Your task to perform on an android device: delete browsing data in the chrome app Image 0: 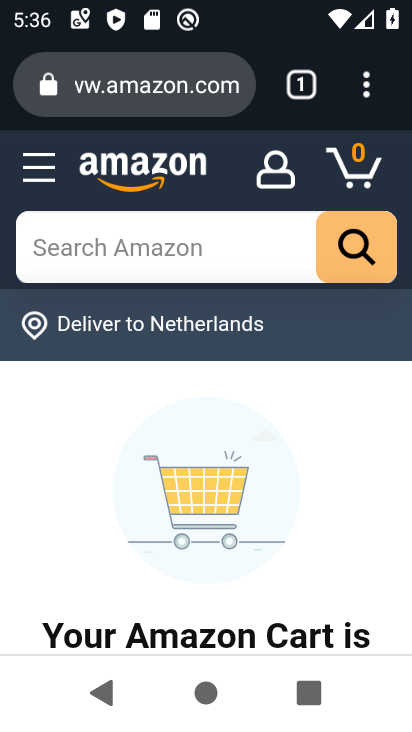
Step 0: drag from (370, 73) to (100, 511)
Your task to perform on an android device: delete browsing data in the chrome app Image 1: 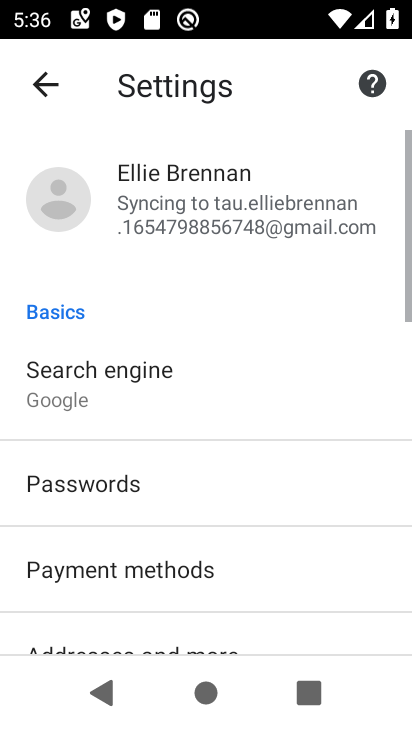
Step 1: drag from (318, 529) to (367, 97)
Your task to perform on an android device: delete browsing data in the chrome app Image 2: 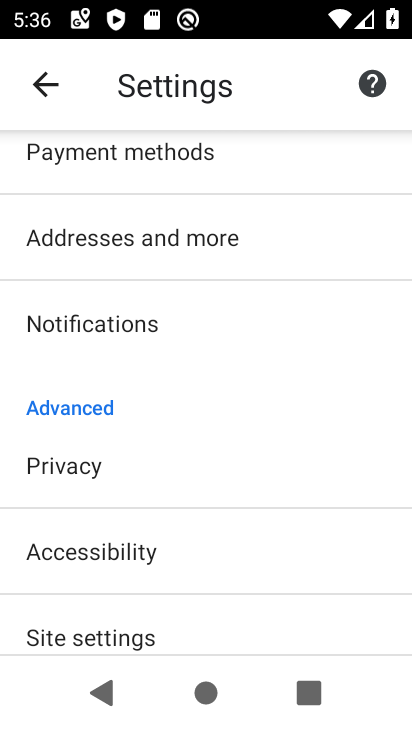
Step 2: drag from (169, 618) to (271, 166)
Your task to perform on an android device: delete browsing data in the chrome app Image 3: 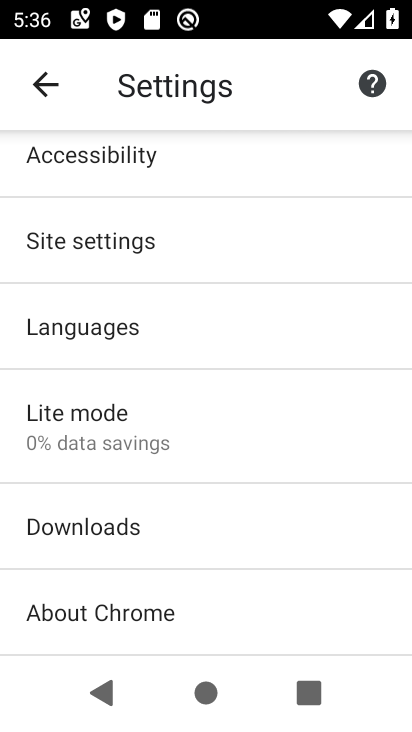
Step 3: drag from (191, 593) to (215, 276)
Your task to perform on an android device: delete browsing data in the chrome app Image 4: 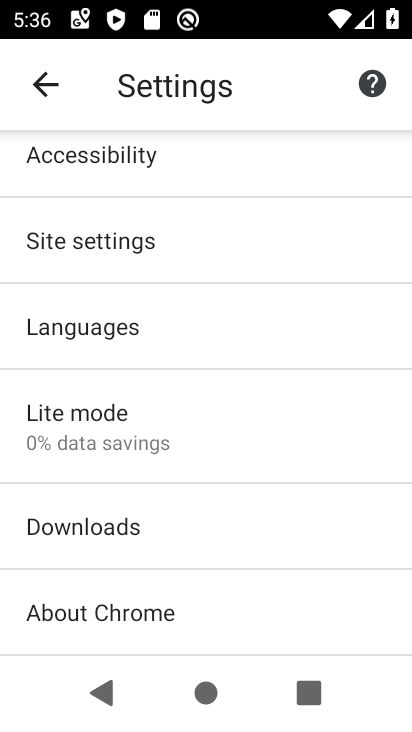
Step 4: drag from (224, 192) to (307, 724)
Your task to perform on an android device: delete browsing data in the chrome app Image 5: 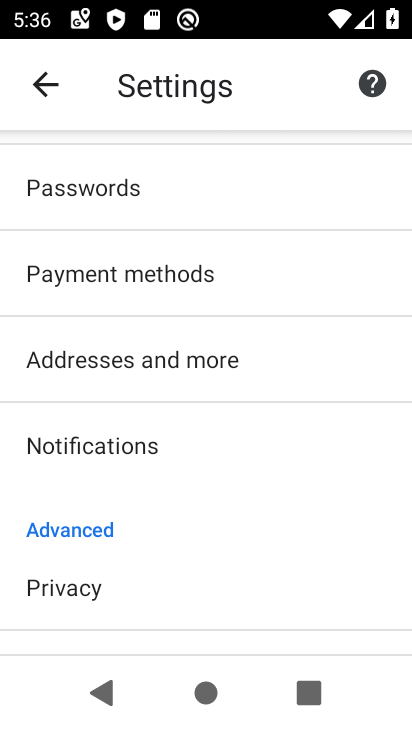
Step 5: click (54, 81)
Your task to perform on an android device: delete browsing data in the chrome app Image 6: 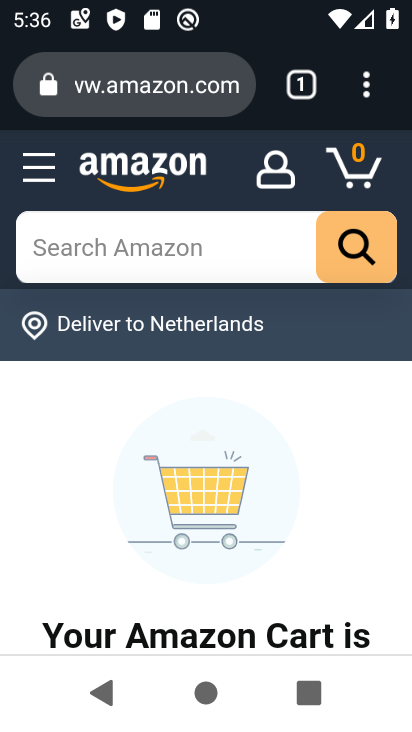
Step 6: drag from (362, 80) to (120, 478)
Your task to perform on an android device: delete browsing data in the chrome app Image 7: 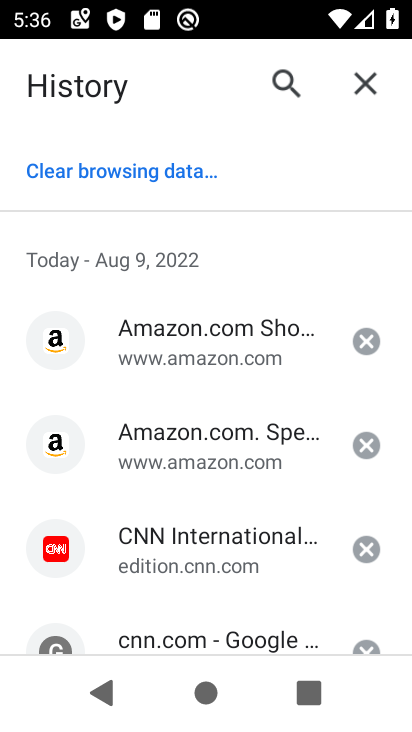
Step 7: drag from (205, 465) to (223, 237)
Your task to perform on an android device: delete browsing data in the chrome app Image 8: 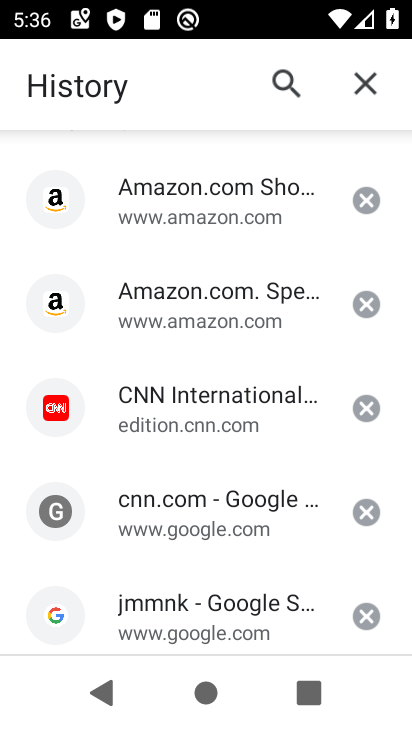
Step 8: drag from (214, 257) to (188, 731)
Your task to perform on an android device: delete browsing data in the chrome app Image 9: 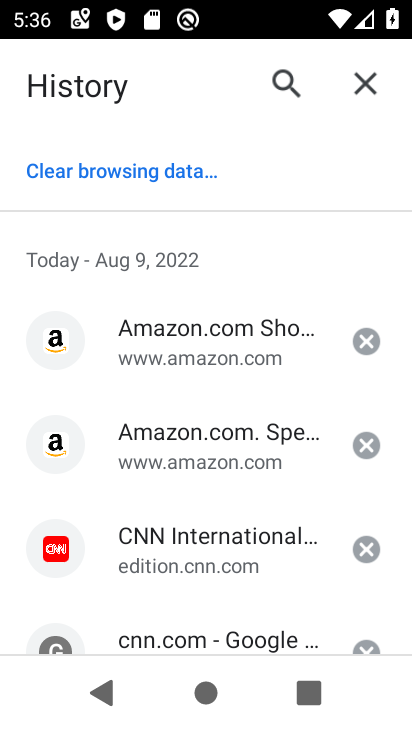
Step 9: click (78, 165)
Your task to perform on an android device: delete browsing data in the chrome app Image 10: 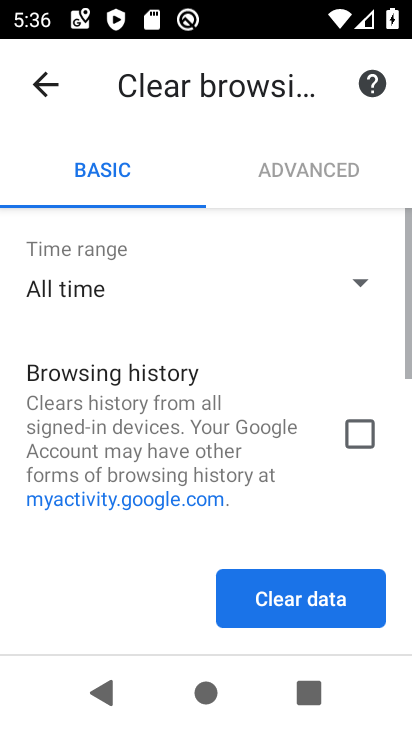
Step 10: drag from (269, 546) to (263, 311)
Your task to perform on an android device: delete browsing data in the chrome app Image 11: 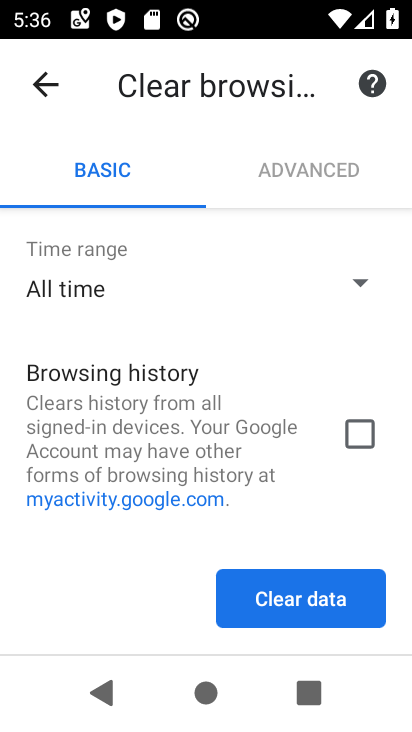
Step 11: drag from (233, 471) to (244, 197)
Your task to perform on an android device: delete browsing data in the chrome app Image 12: 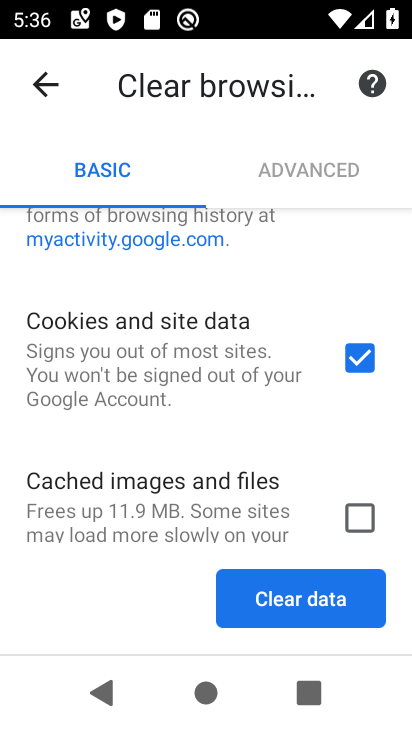
Step 12: click (254, 216)
Your task to perform on an android device: delete browsing data in the chrome app Image 13: 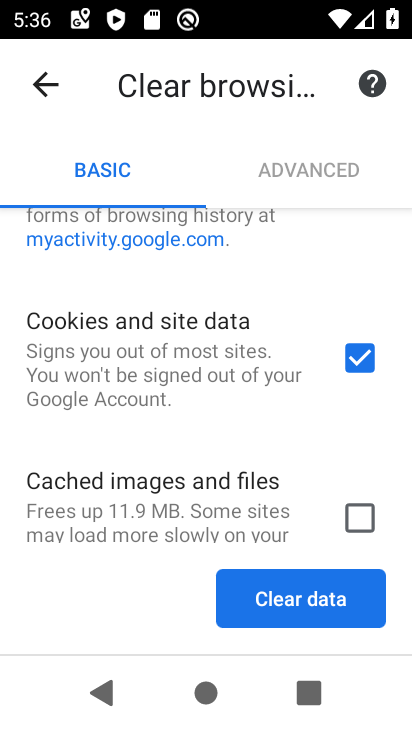
Step 13: drag from (221, 264) to (306, 661)
Your task to perform on an android device: delete browsing data in the chrome app Image 14: 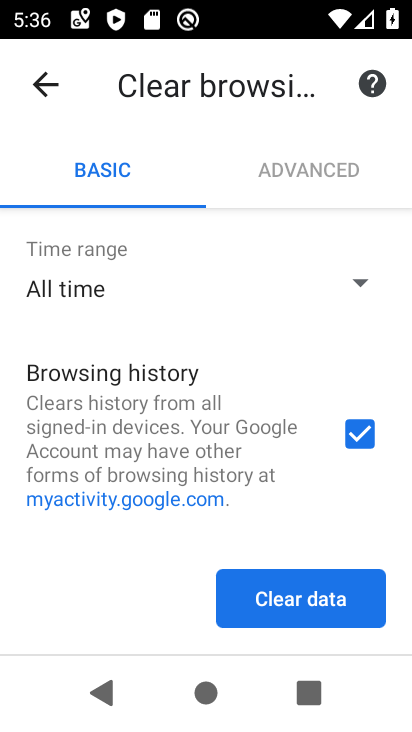
Step 14: click (350, 432)
Your task to perform on an android device: delete browsing data in the chrome app Image 15: 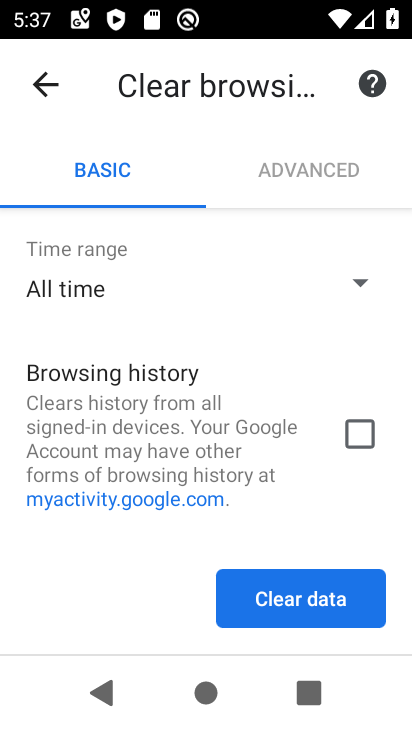
Step 15: click (294, 605)
Your task to perform on an android device: delete browsing data in the chrome app Image 16: 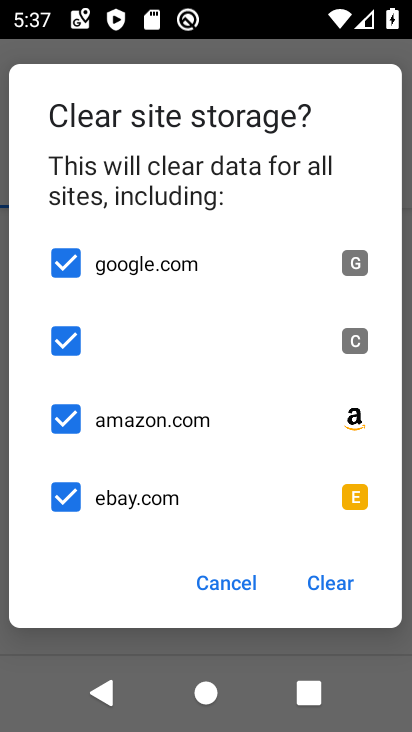
Step 16: click (307, 566)
Your task to perform on an android device: delete browsing data in the chrome app Image 17: 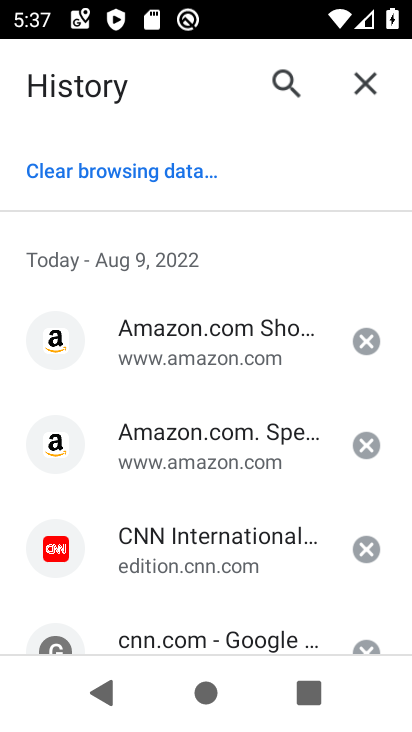
Step 17: task complete